Your task to perform on an android device: toggle pop-ups in chrome Image 0: 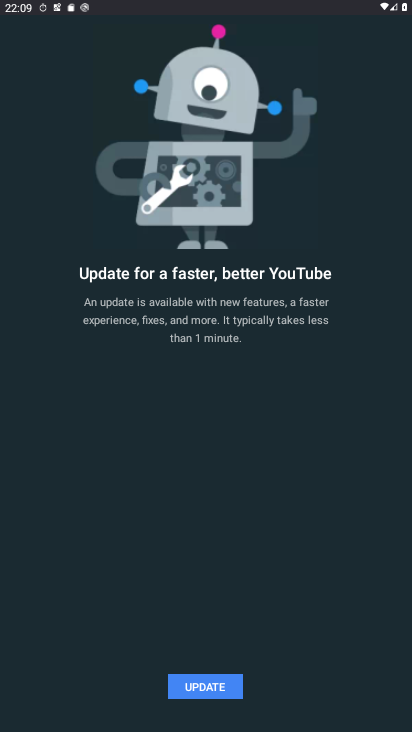
Step 0: press home button
Your task to perform on an android device: toggle pop-ups in chrome Image 1: 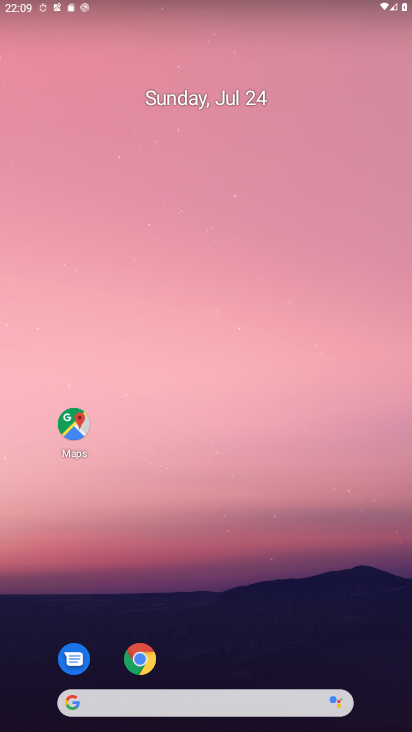
Step 1: click (141, 660)
Your task to perform on an android device: toggle pop-ups in chrome Image 2: 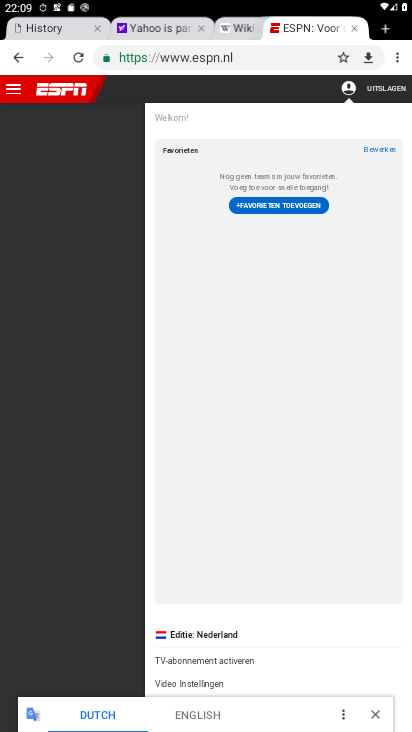
Step 2: click (397, 62)
Your task to perform on an android device: toggle pop-ups in chrome Image 3: 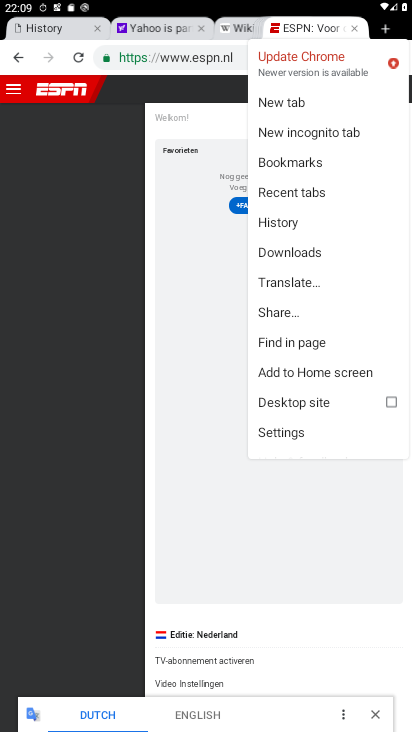
Step 3: click (281, 429)
Your task to perform on an android device: toggle pop-ups in chrome Image 4: 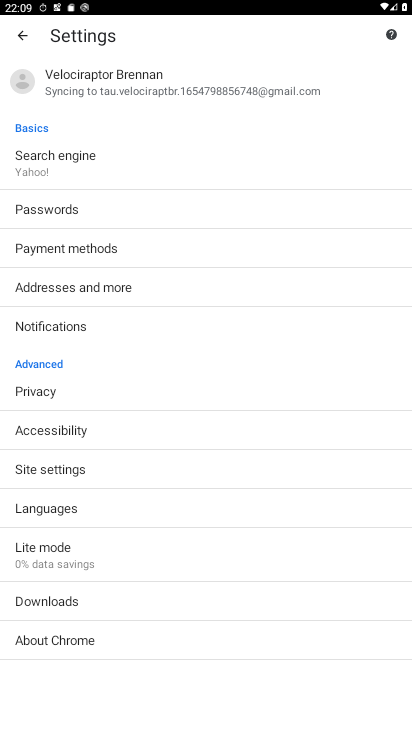
Step 4: click (46, 467)
Your task to perform on an android device: toggle pop-ups in chrome Image 5: 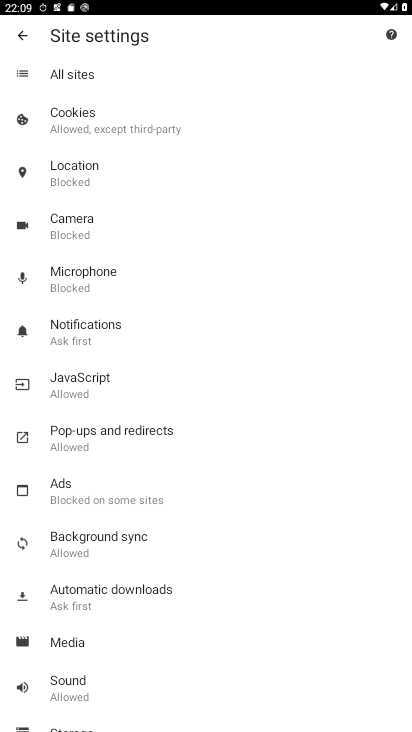
Step 5: click (75, 441)
Your task to perform on an android device: toggle pop-ups in chrome Image 6: 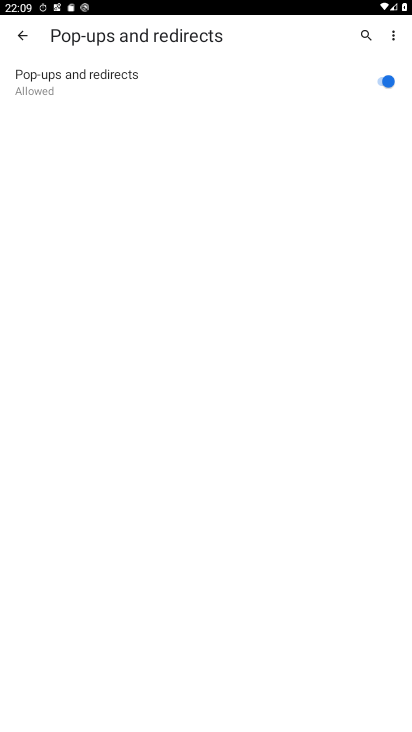
Step 6: click (382, 81)
Your task to perform on an android device: toggle pop-ups in chrome Image 7: 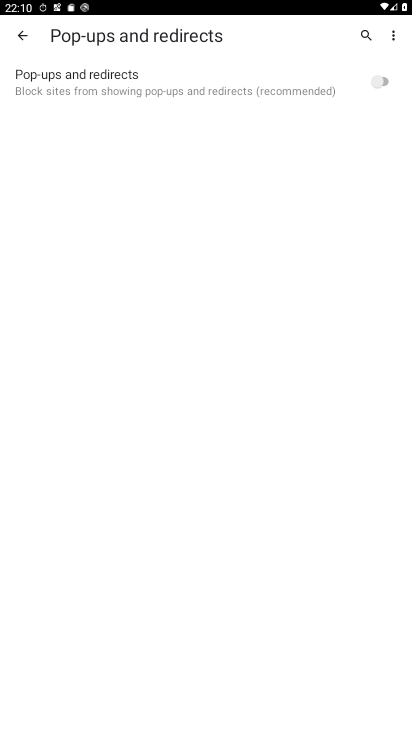
Step 7: task complete